Your task to perform on an android device: Show me popular games on the Play Store Image 0: 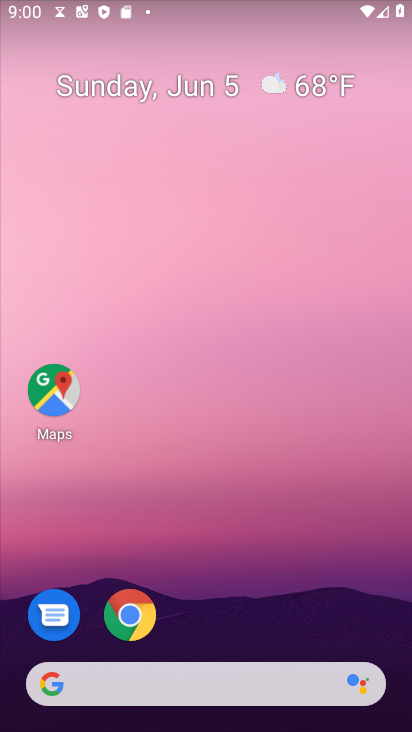
Step 0: drag from (211, 678) to (266, 80)
Your task to perform on an android device: Show me popular games on the Play Store Image 1: 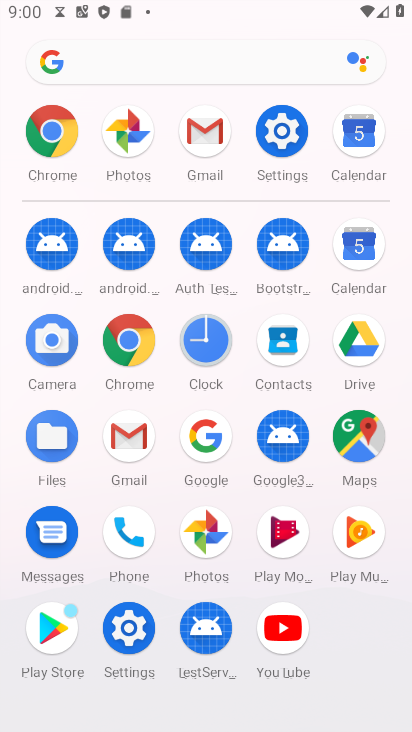
Step 1: click (46, 630)
Your task to perform on an android device: Show me popular games on the Play Store Image 2: 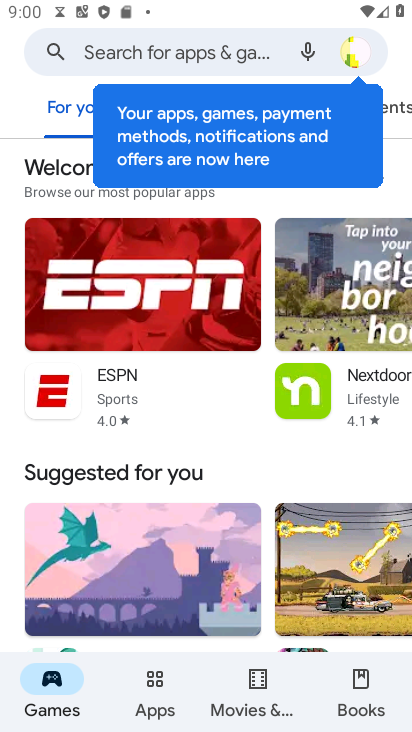
Step 2: drag from (211, 499) to (283, 161)
Your task to perform on an android device: Show me popular games on the Play Store Image 3: 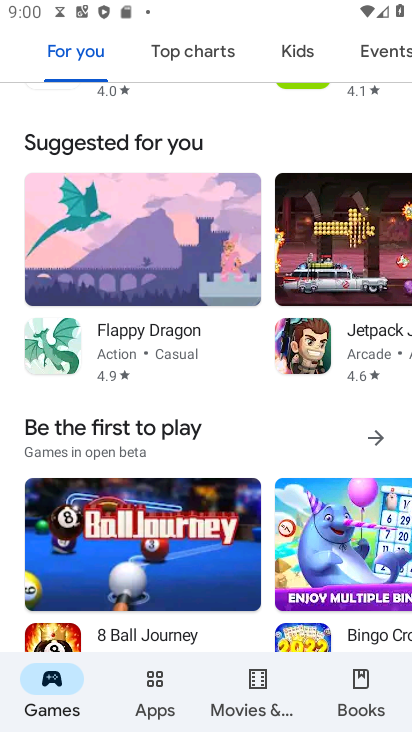
Step 3: drag from (255, 549) to (247, 176)
Your task to perform on an android device: Show me popular games on the Play Store Image 4: 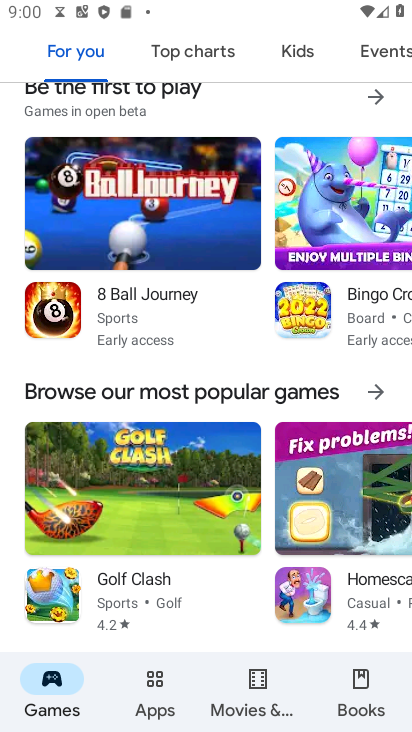
Step 4: click (374, 393)
Your task to perform on an android device: Show me popular games on the Play Store Image 5: 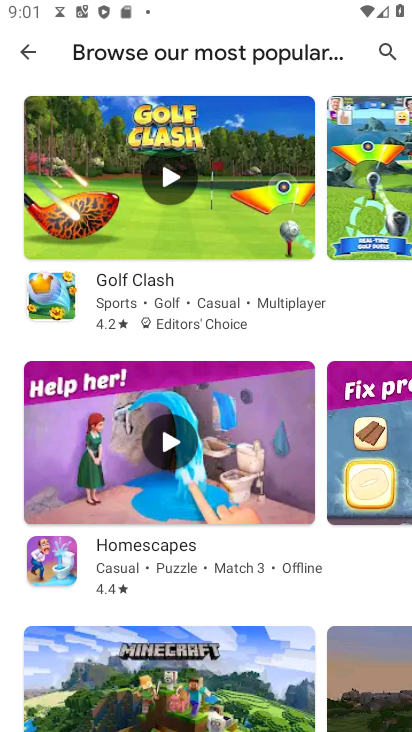
Step 5: task complete